Your task to perform on an android device: Go to display settings Image 0: 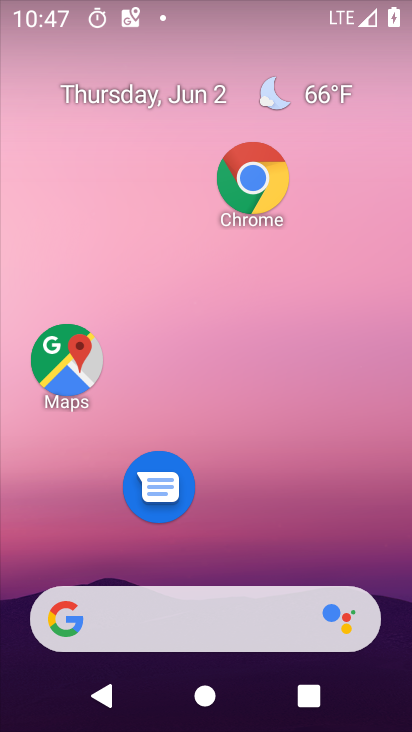
Step 0: drag from (236, 723) to (239, 47)
Your task to perform on an android device: Go to display settings Image 1: 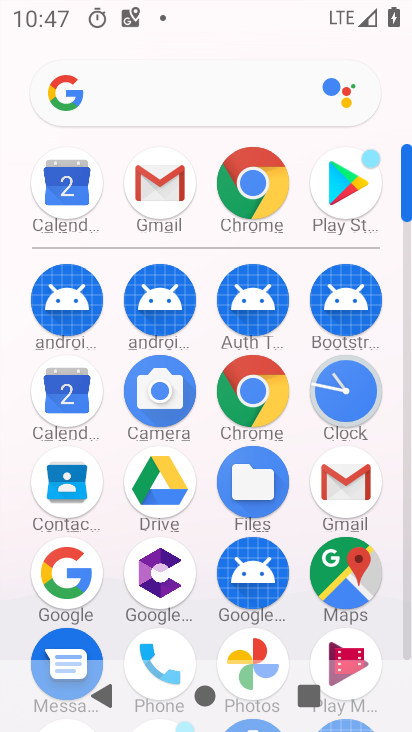
Step 1: drag from (204, 617) to (224, 221)
Your task to perform on an android device: Go to display settings Image 2: 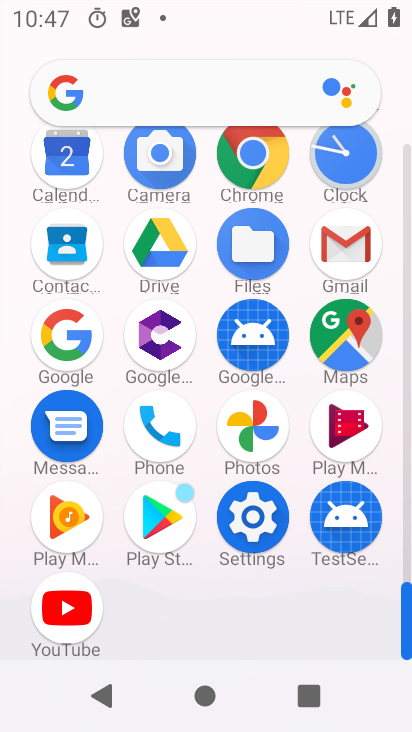
Step 2: click (258, 525)
Your task to perform on an android device: Go to display settings Image 3: 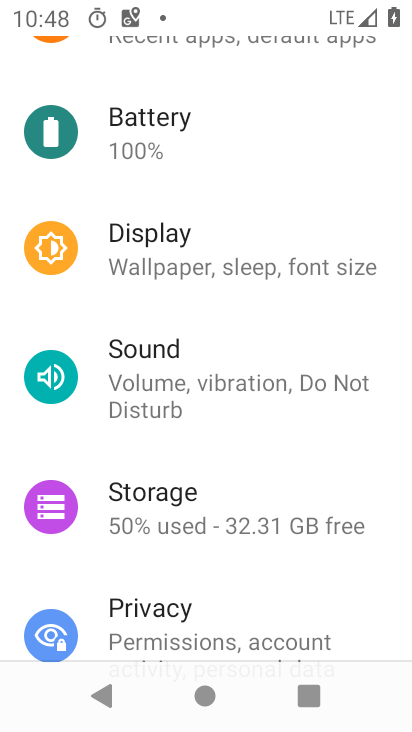
Step 3: click (163, 253)
Your task to perform on an android device: Go to display settings Image 4: 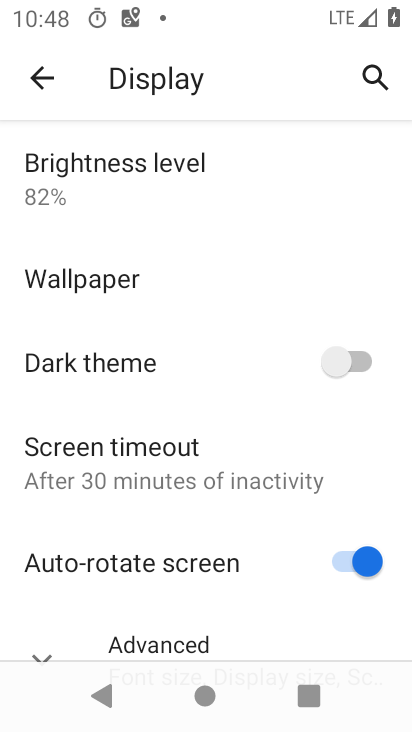
Step 4: task complete